Your task to perform on an android device: uninstall "Clock" Image 0: 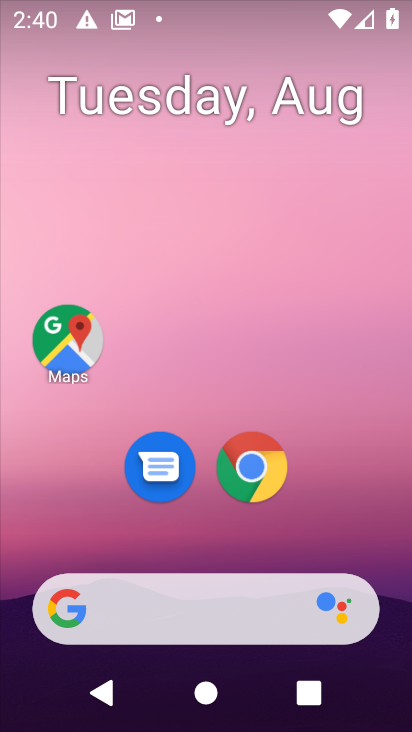
Step 0: drag from (214, 558) to (249, 20)
Your task to perform on an android device: uninstall "Clock" Image 1: 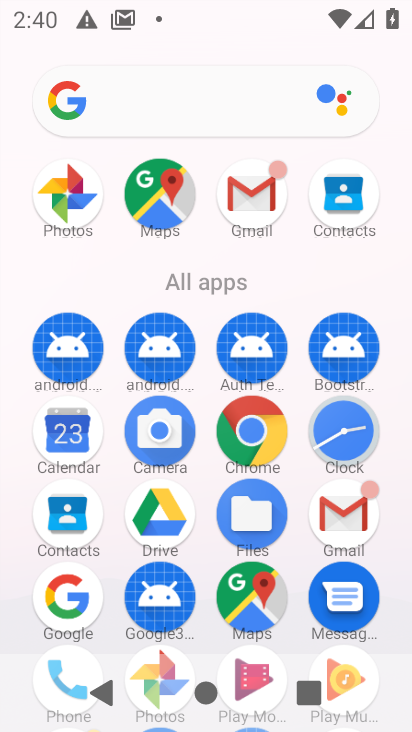
Step 1: drag from (301, 558) to (288, 312)
Your task to perform on an android device: uninstall "Clock" Image 2: 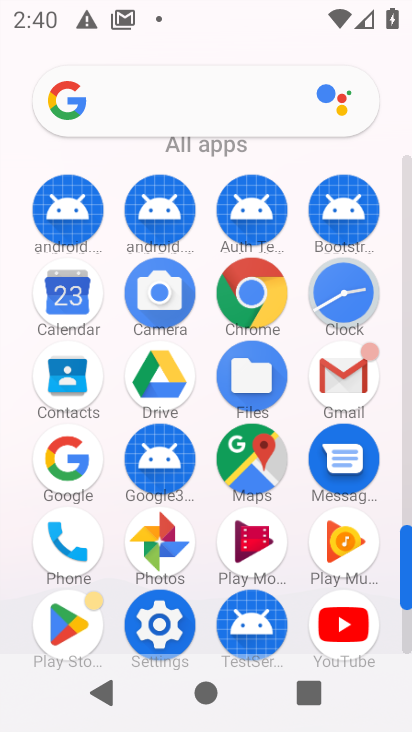
Step 2: click (66, 614)
Your task to perform on an android device: uninstall "Clock" Image 3: 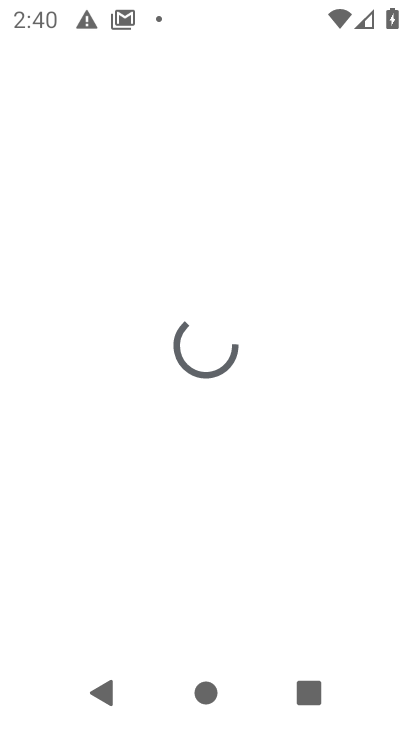
Step 3: task complete